Your task to perform on an android device: change your default location settings in chrome Image 0: 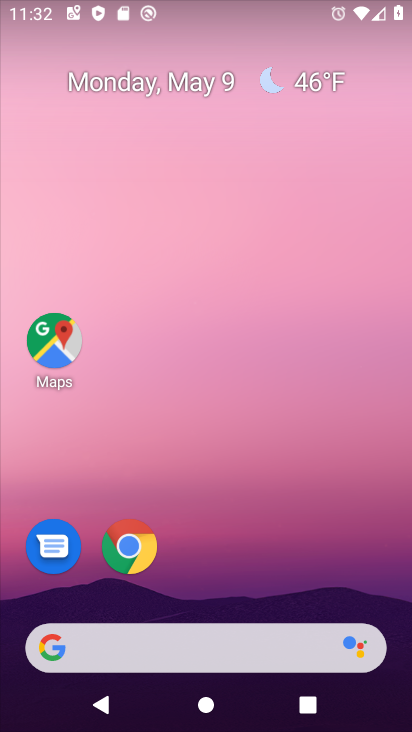
Step 0: click (127, 552)
Your task to perform on an android device: change your default location settings in chrome Image 1: 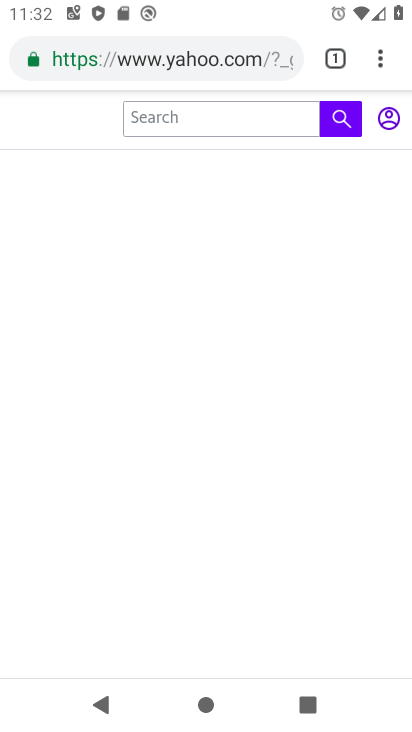
Step 1: drag from (381, 59) to (202, 581)
Your task to perform on an android device: change your default location settings in chrome Image 2: 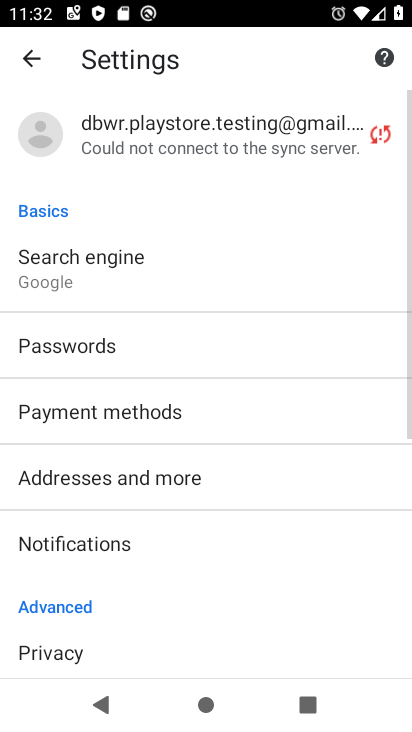
Step 2: drag from (198, 531) to (198, 145)
Your task to perform on an android device: change your default location settings in chrome Image 3: 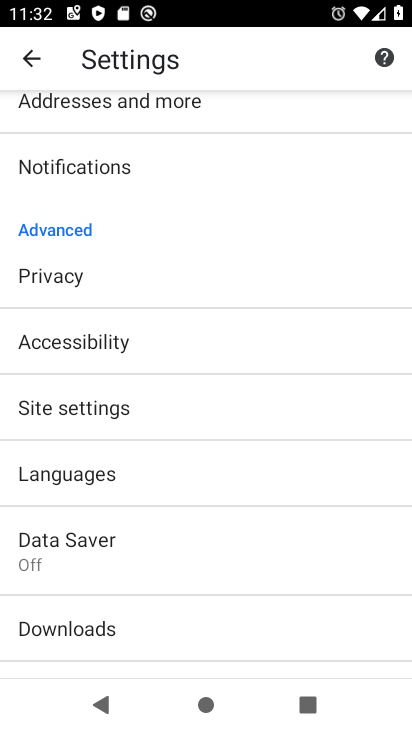
Step 3: click (65, 409)
Your task to perform on an android device: change your default location settings in chrome Image 4: 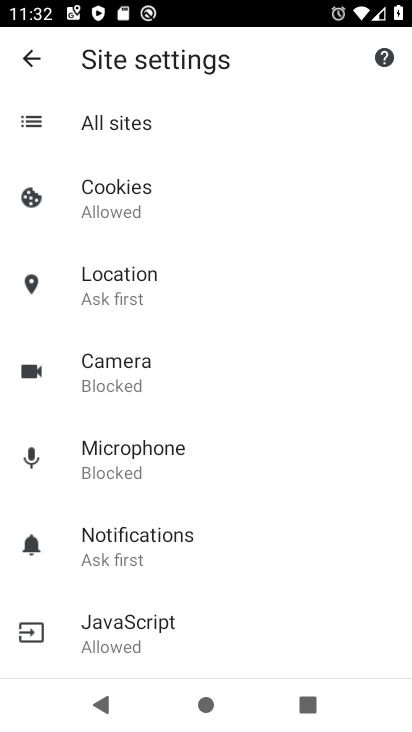
Step 4: click (126, 300)
Your task to perform on an android device: change your default location settings in chrome Image 5: 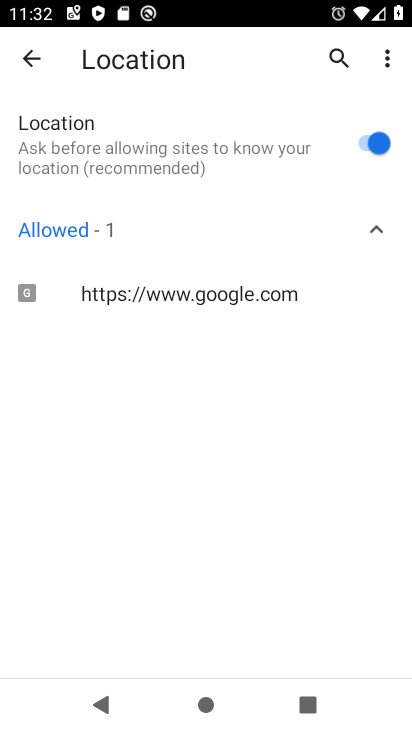
Step 5: click (366, 142)
Your task to perform on an android device: change your default location settings in chrome Image 6: 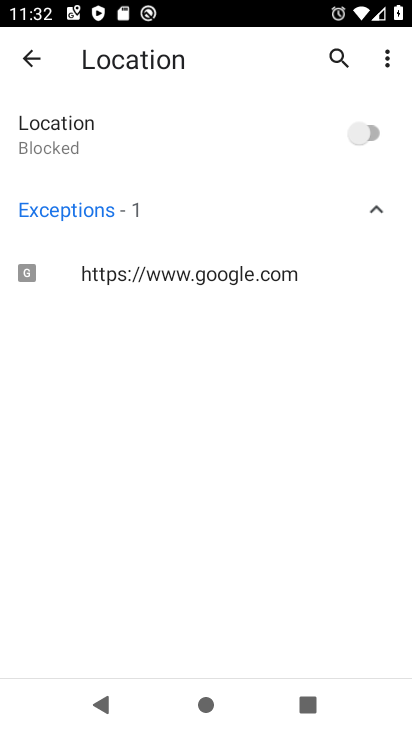
Step 6: task complete